Your task to perform on an android device: Open notification settings Image 0: 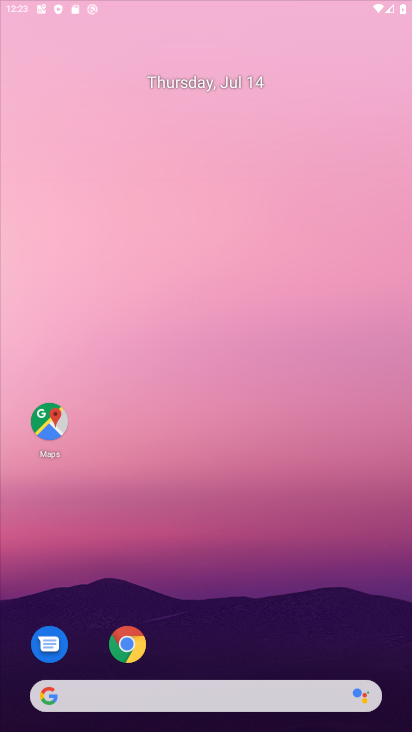
Step 0: drag from (261, 695) to (227, 135)
Your task to perform on an android device: Open notification settings Image 1: 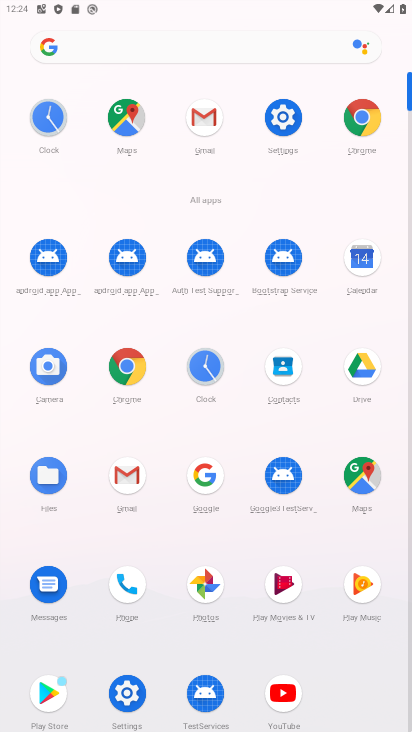
Step 1: press home button
Your task to perform on an android device: Open notification settings Image 2: 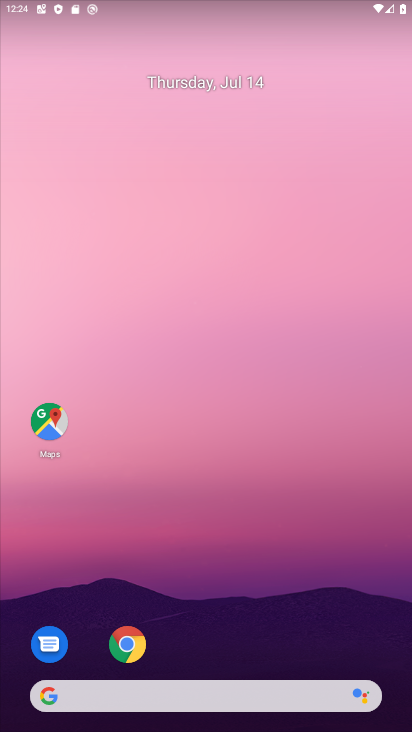
Step 2: drag from (201, 690) to (223, 122)
Your task to perform on an android device: Open notification settings Image 3: 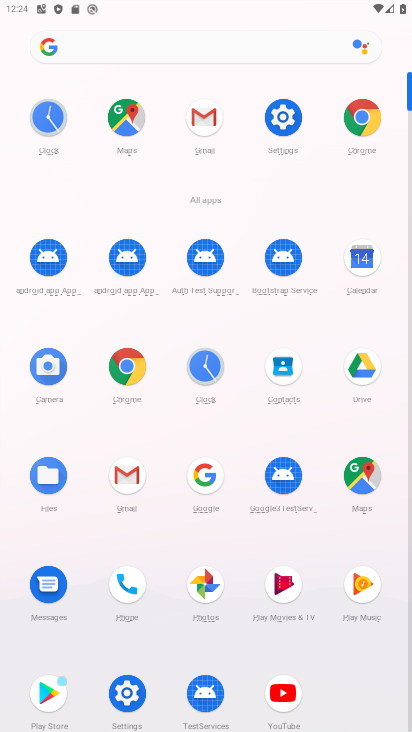
Step 3: click (279, 130)
Your task to perform on an android device: Open notification settings Image 4: 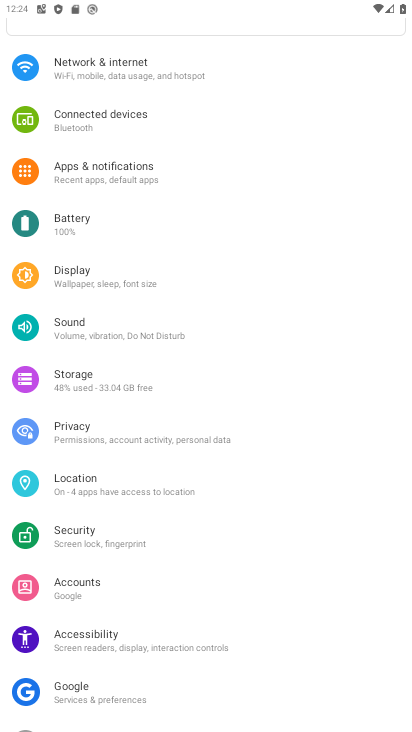
Step 4: click (116, 166)
Your task to perform on an android device: Open notification settings Image 5: 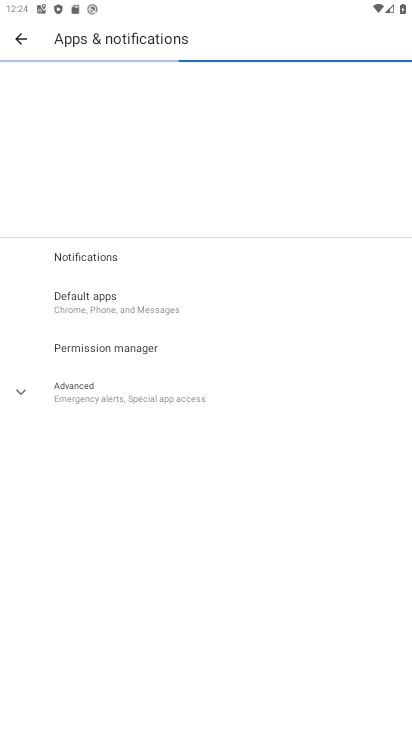
Step 5: task complete